Your task to perform on an android device: Go to CNN.com Image 0: 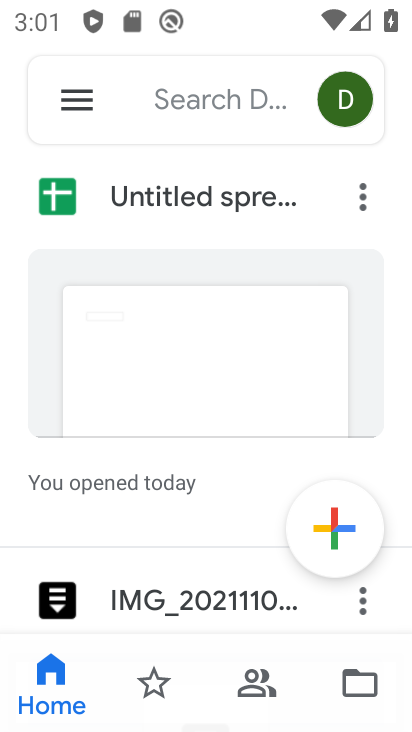
Step 0: press home button
Your task to perform on an android device: Go to CNN.com Image 1: 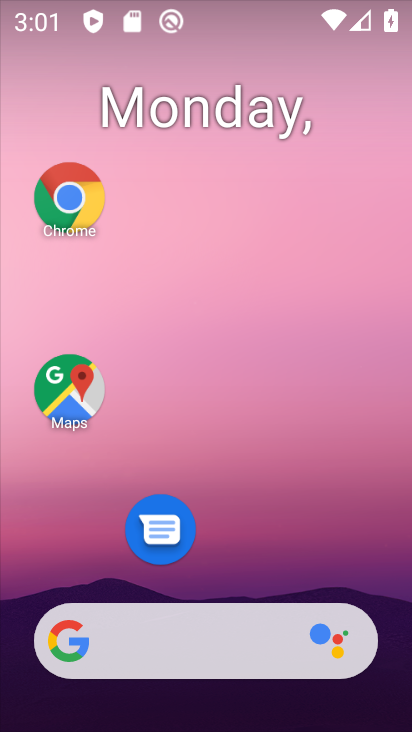
Step 1: click (88, 207)
Your task to perform on an android device: Go to CNN.com Image 2: 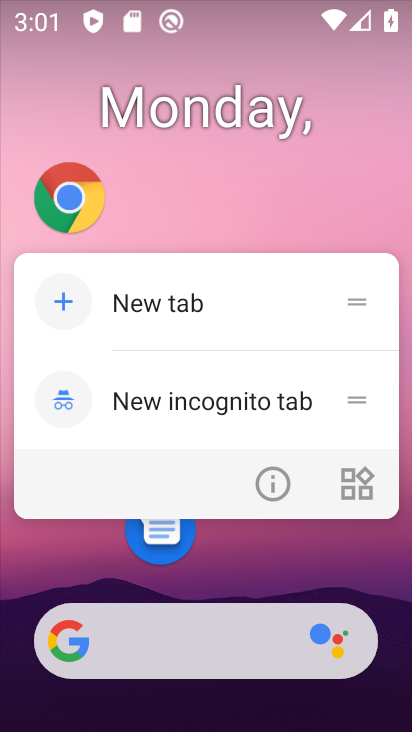
Step 2: click (94, 187)
Your task to perform on an android device: Go to CNN.com Image 3: 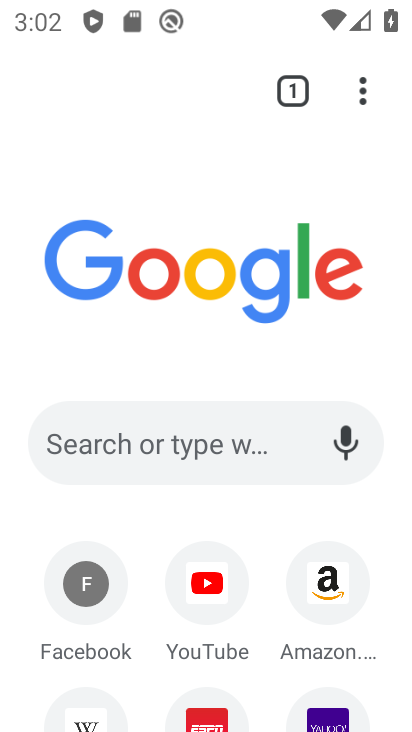
Step 3: click (144, 447)
Your task to perform on an android device: Go to CNN.com Image 4: 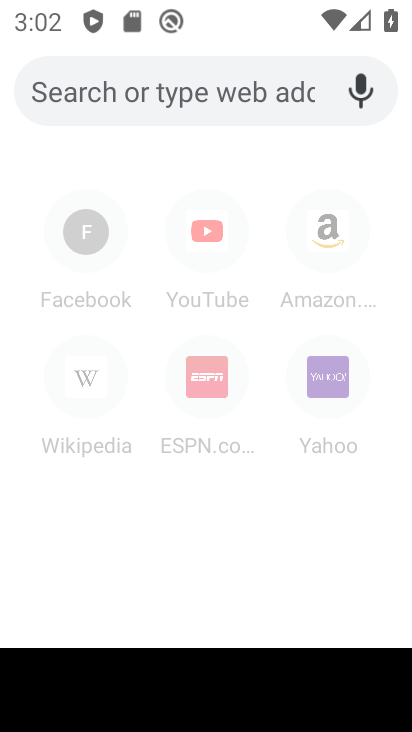
Step 4: type "cnn"
Your task to perform on an android device: Go to CNN.com Image 5: 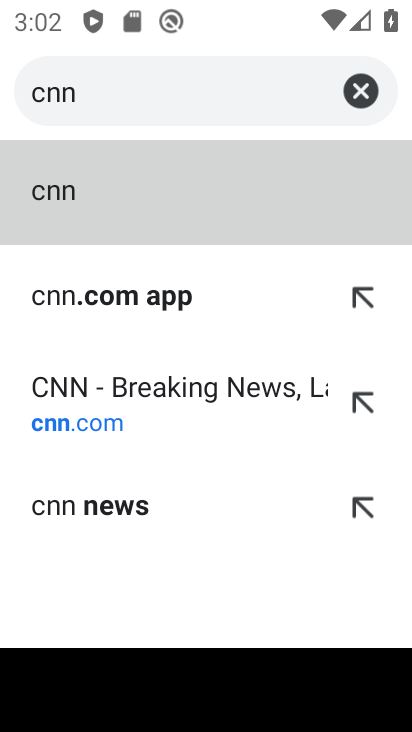
Step 5: click (176, 399)
Your task to perform on an android device: Go to CNN.com Image 6: 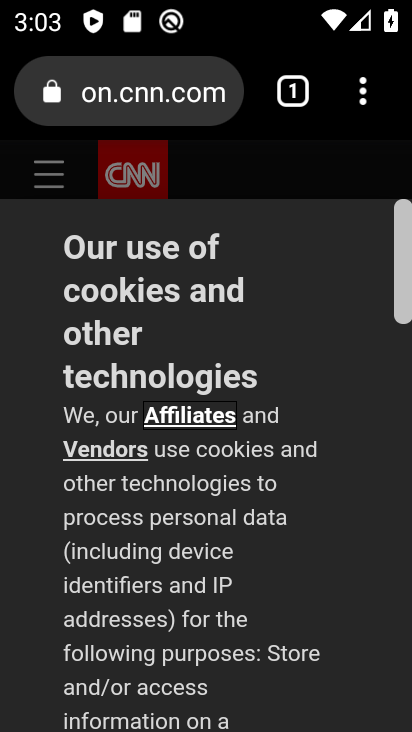
Step 6: task complete